Your task to perform on an android device: open the mobile data screen to see how much data has been used Image 0: 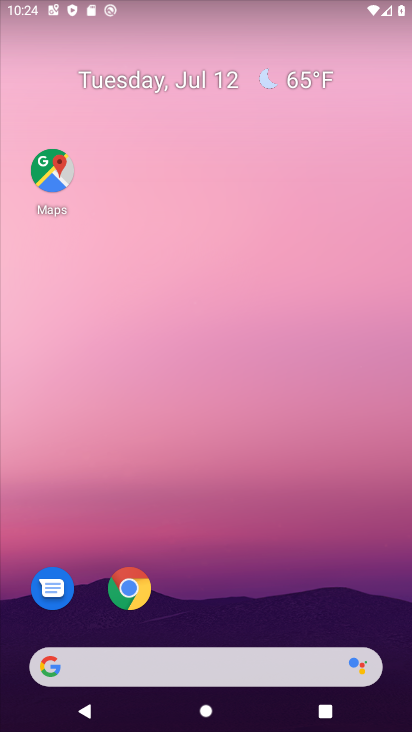
Step 0: drag from (157, 54) to (189, 1)
Your task to perform on an android device: open the mobile data screen to see how much data has been used Image 1: 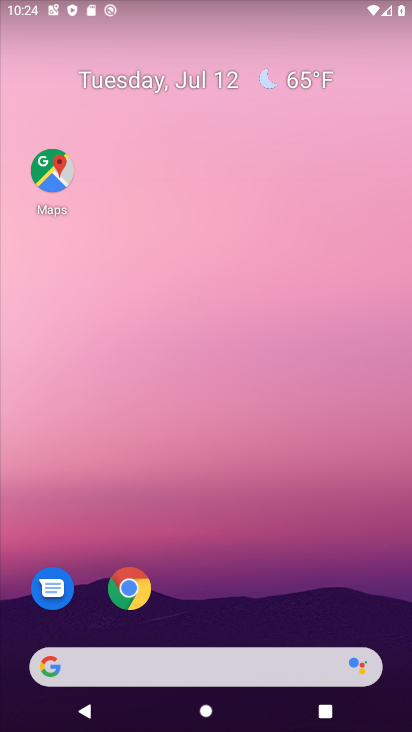
Step 1: drag from (36, 654) to (234, 98)
Your task to perform on an android device: open the mobile data screen to see how much data has been used Image 2: 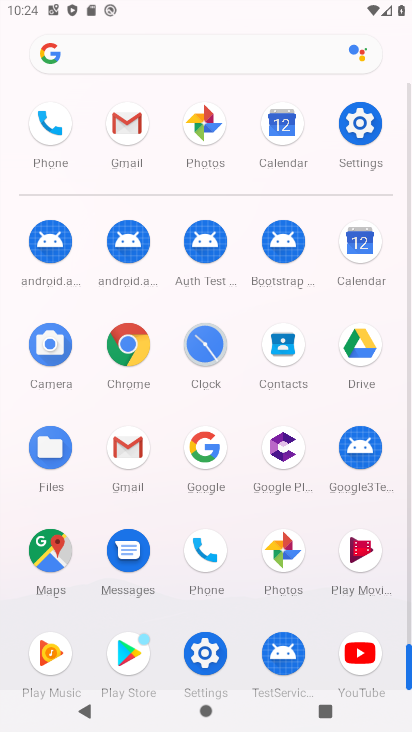
Step 2: click (206, 663)
Your task to perform on an android device: open the mobile data screen to see how much data has been used Image 3: 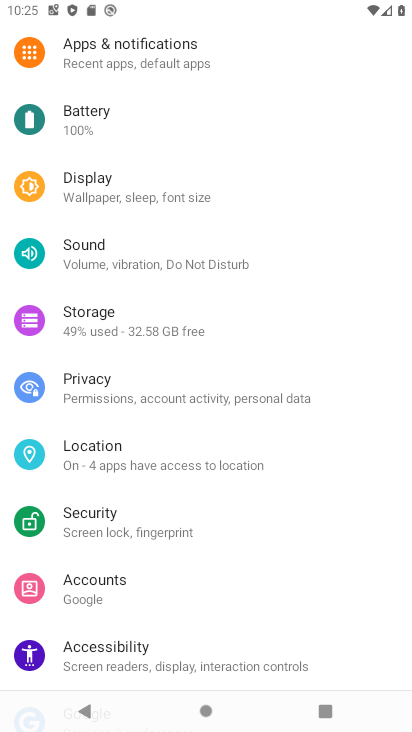
Step 3: drag from (291, 75) to (291, 502)
Your task to perform on an android device: open the mobile data screen to see how much data has been used Image 4: 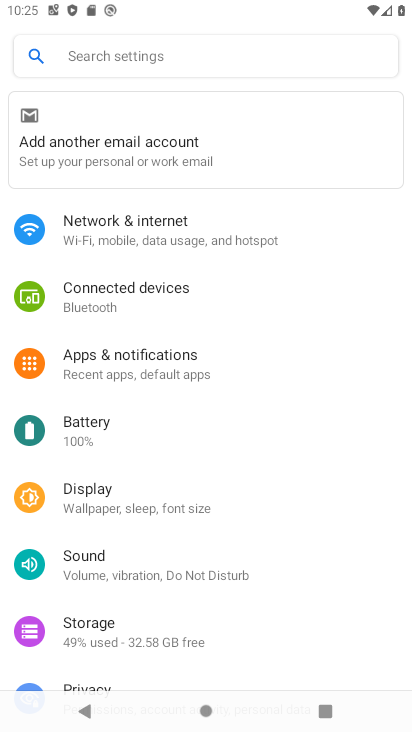
Step 4: click (166, 226)
Your task to perform on an android device: open the mobile data screen to see how much data has been used Image 5: 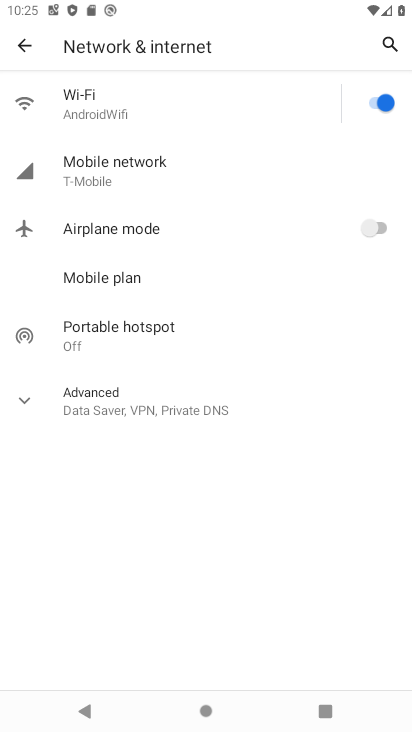
Step 5: click (131, 137)
Your task to perform on an android device: open the mobile data screen to see how much data has been used Image 6: 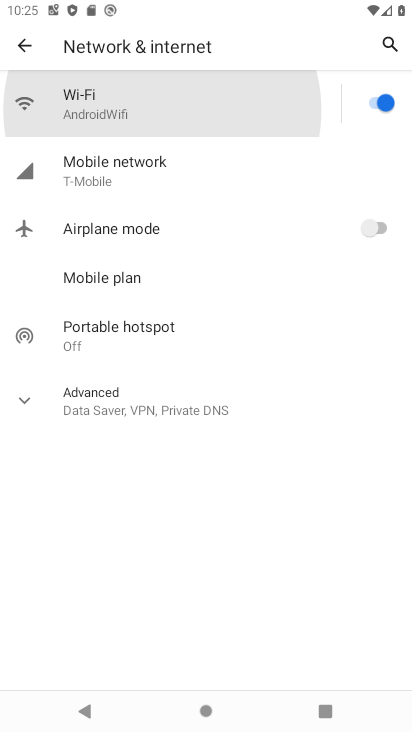
Step 6: click (115, 181)
Your task to perform on an android device: open the mobile data screen to see how much data has been used Image 7: 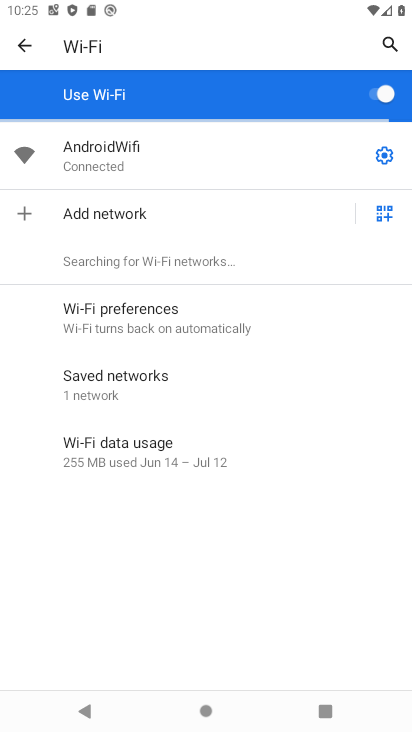
Step 7: click (30, 43)
Your task to perform on an android device: open the mobile data screen to see how much data has been used Image 8: 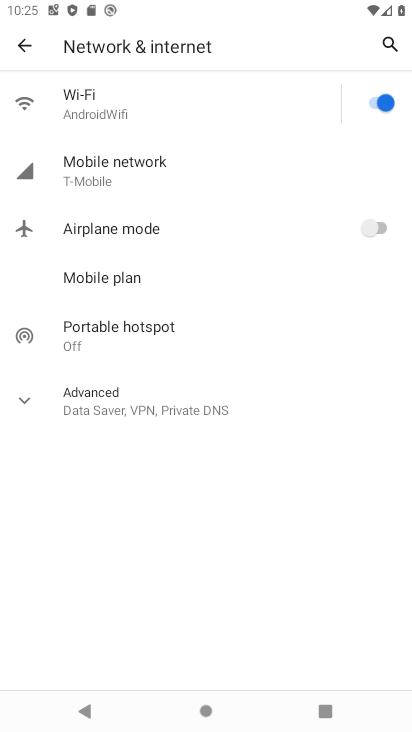
Step 8: click (164, 174)
Your task to perform on an android device: open the mobile data screen to see how much data has been used Image 9: 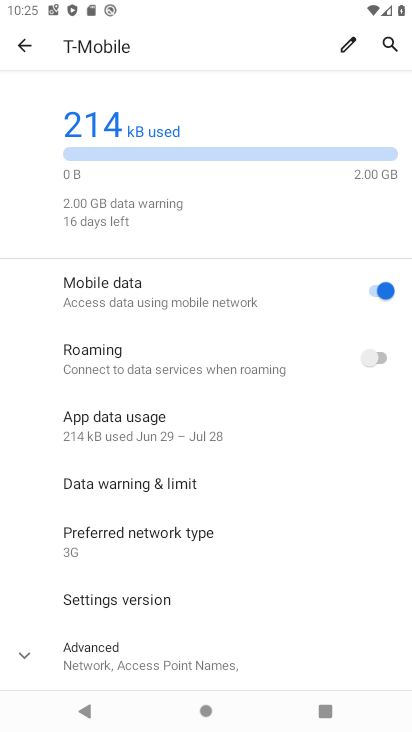
Step 9: task complete